Your task to perform on an android device: Go to battery settings Image 0: 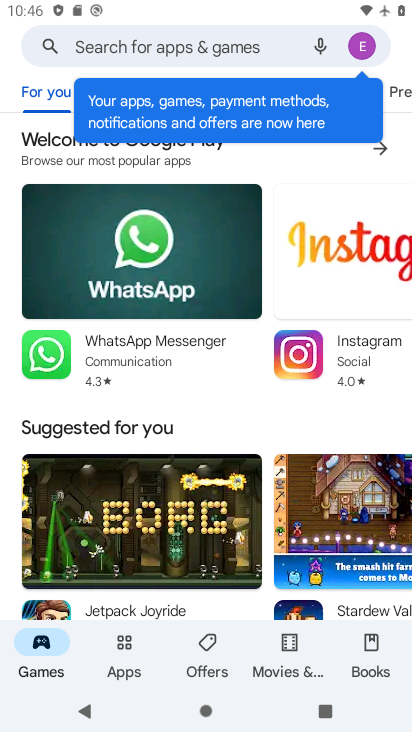
Step 0: press home button
Your task to perform on an android device: Go to battery settings Image 1: 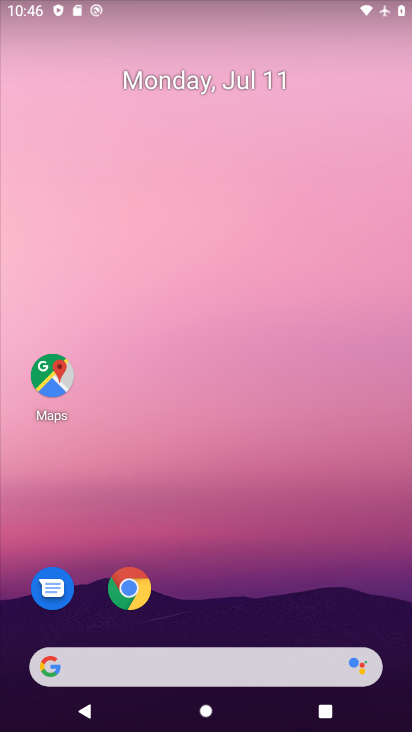
Step 1: drag from (167, 679) to (299, 159)
Your task to perform on an android device: Go to battery settings Image 2: 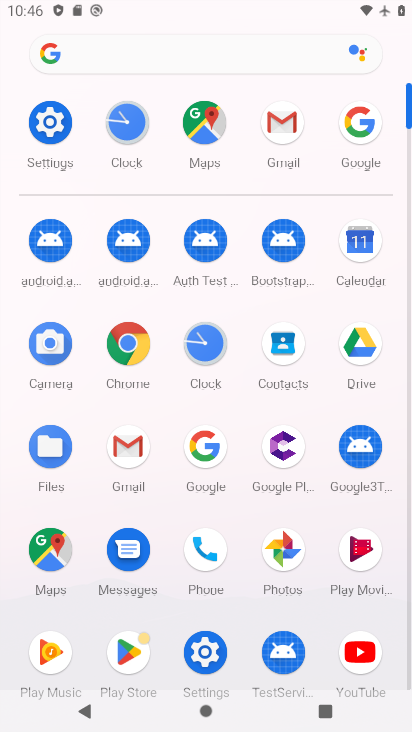
Step 2: click (59, 119)
Your task to perform on an android device: Go to battery settings Image 3: 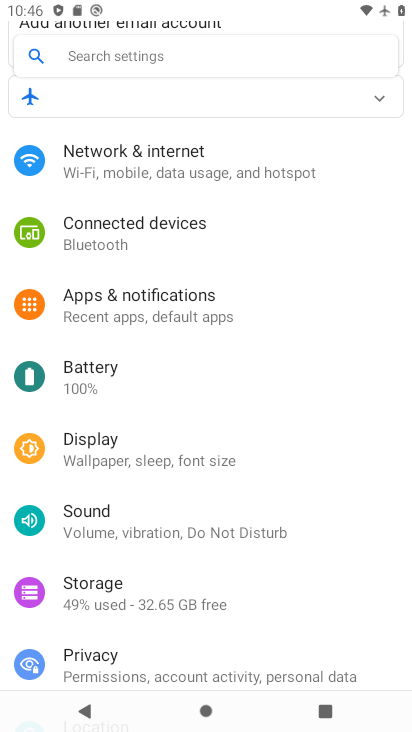
Step 3: click (96, 377)
Your task to perform on an android device: Go to battery settings Image 4: 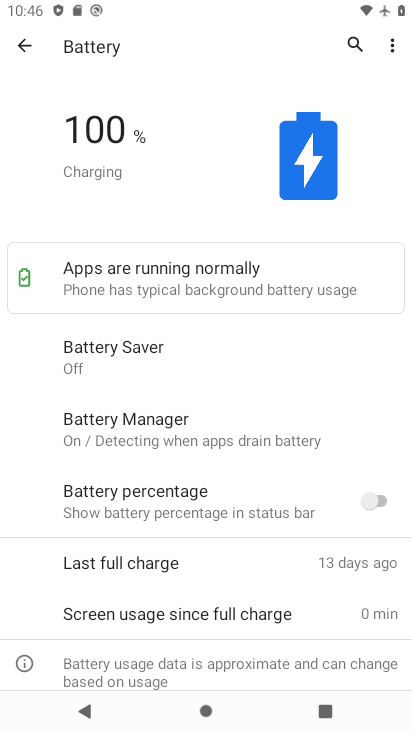
Step 4: task complete